Your task to perform on an android device: delete the emails in spam in the gmail app Image 0: 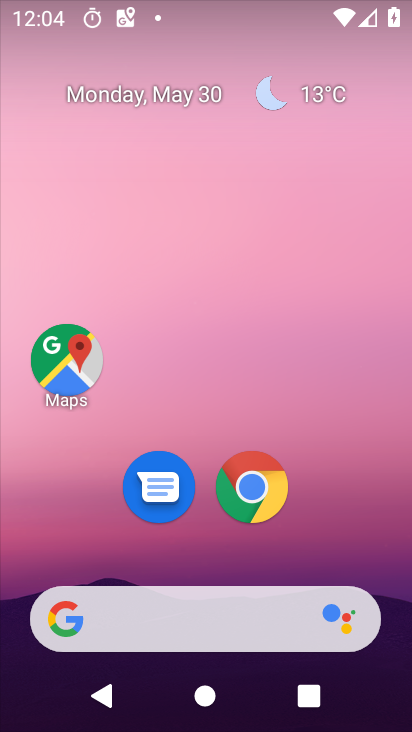
Step 0: drag from (399, 692) to (288, 63)
Your task to perform on an android device: delete the emails in spam in the gmail app Image 1: 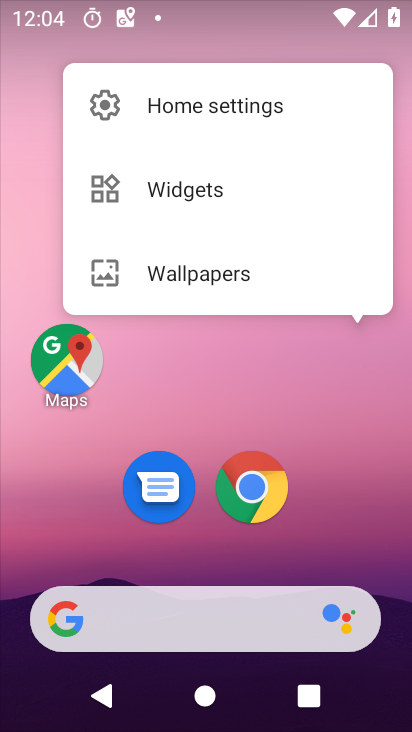
Step 1: press back button
Your task to perform on an android device: delete the emails in spam in the gmail app Image 2: 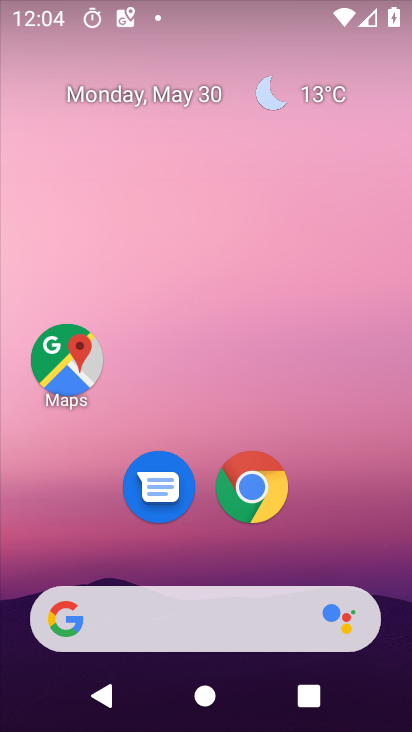
Step 2: drag from (389, 677) to (322, 59)
Your task to perform on an android device: delete the emails in spam in the gmail app Image 3: 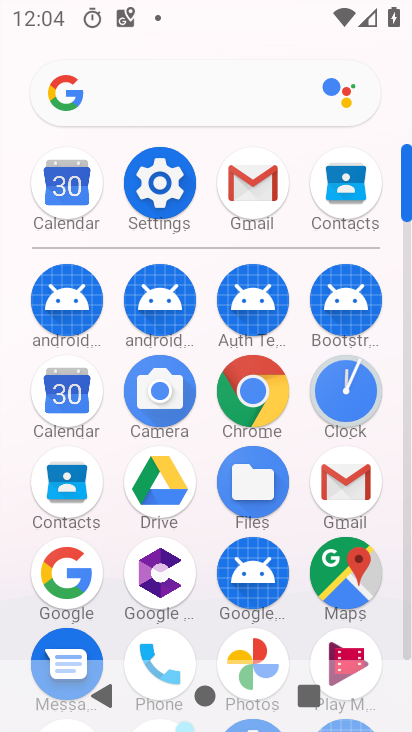
Step 3: click (245, 192)
Your task to perform on an android device: delete the emails in spam in the gmail app Image 4: 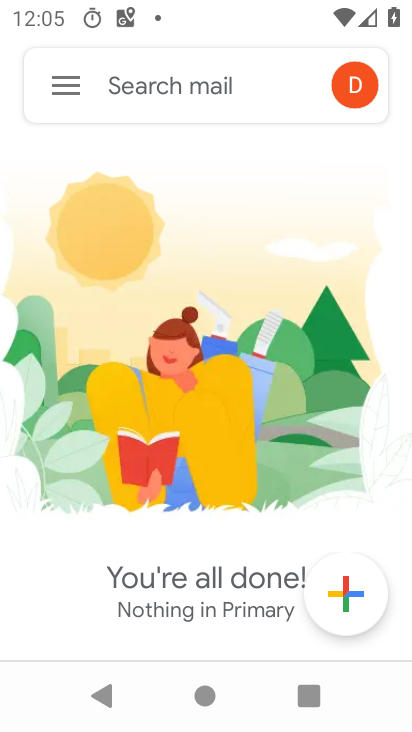
Step 4: click (58, 84)
Your task to perform on an android device: delete the emails in spam in the gmail app Image 5: 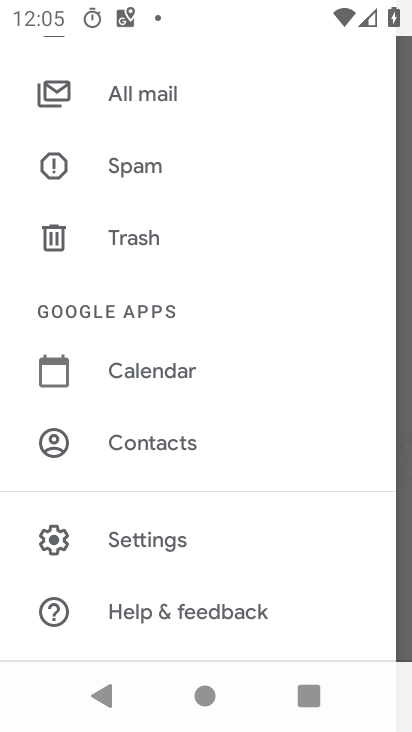
Step 5: drag from (257, 144) to (280, 543)
Your task to perform on an android device: delete the emails in spam in the gmail app Image 6: 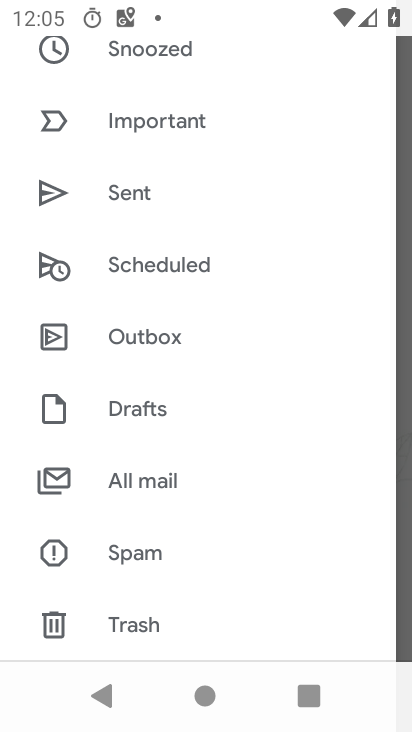
Step 6: drag from (278, 545) to (273, 179)
Your task to perform on an android device: delete the emails in spam in the gmail app Image 7: 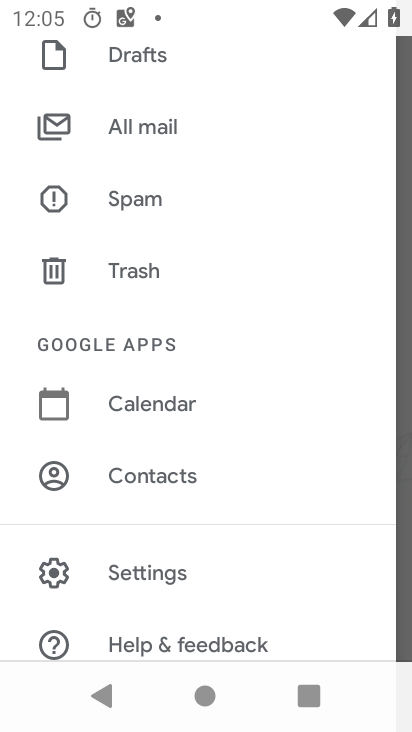
Step 7: click (128, 191)
Your task to perform on an android device: delete the emails in spam in the gmail app Image 8: 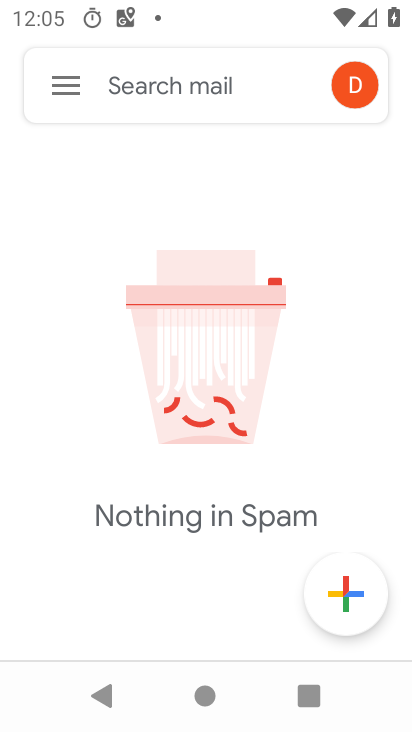
Step 8: task complete